Your task to perform on an android device: Go to Maps Image 0: 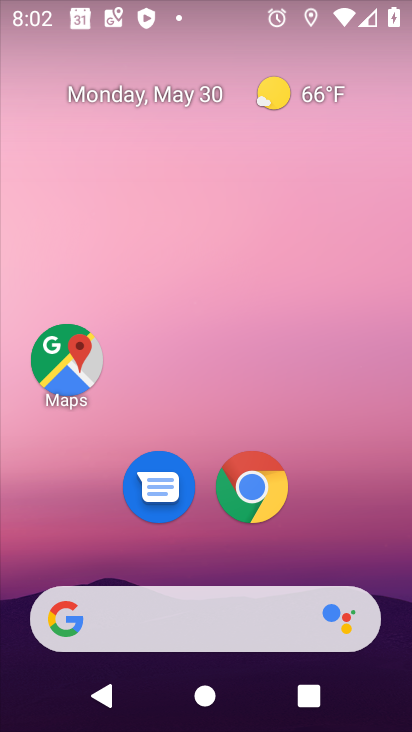
Step 0: press home button
Your task to perform on an android device: Go to Maps Image 1: 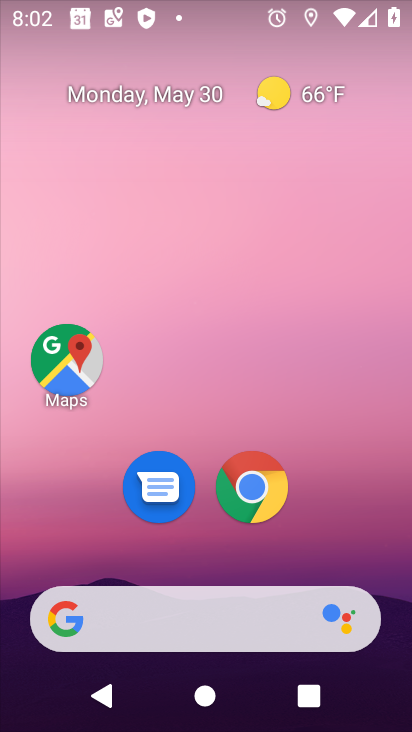
Step 1: click (72, 364)
Your task to perform on an android device: Go to Maps Image 2: 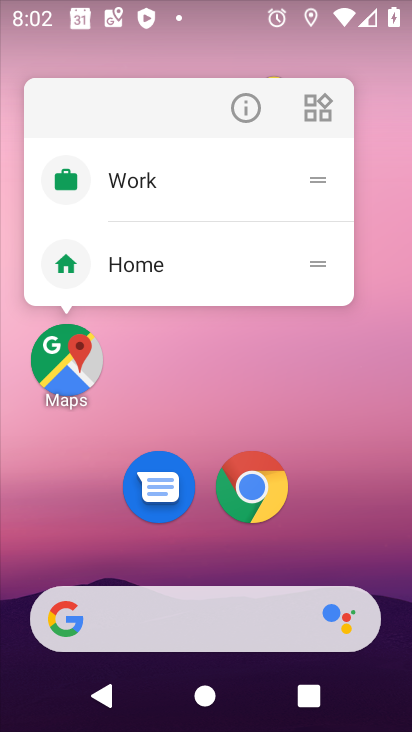
Step 2: click (73, 364)
Your task to perform on an android device: Go to Maps Image 3: 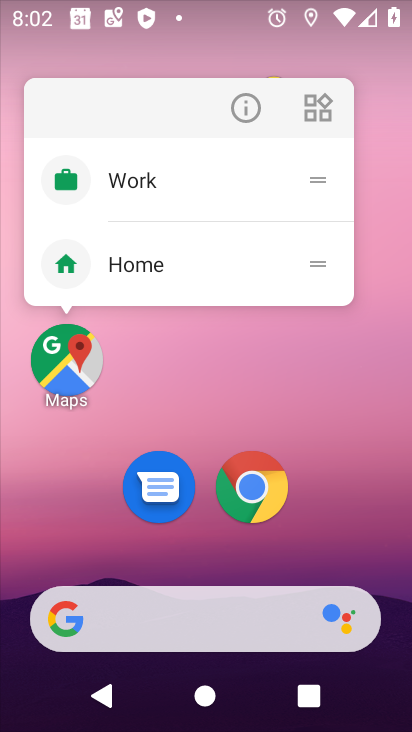
Step 3: click (353, 486)
Your task to perform on an android device: Go to Maps Image 4: 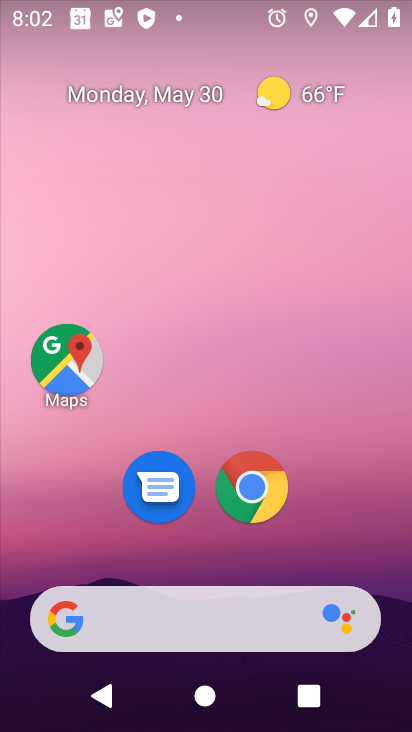
Step 4: drag from (280, 565) to (240, 23)
Your task to perform on an android device: Go to Maps Image 5: 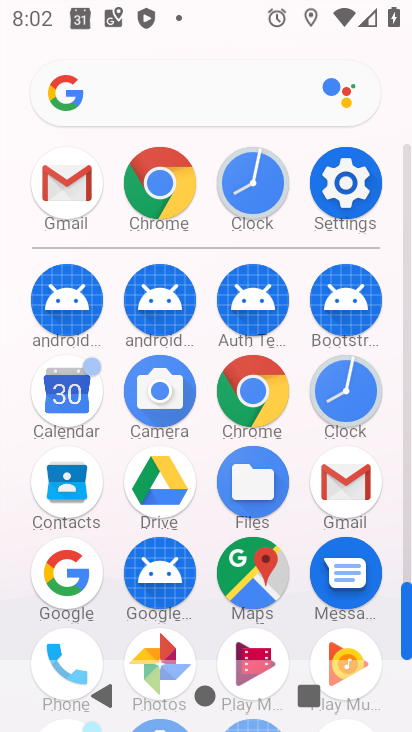
Step 5: click (260, 597)
Your task to perform on an android device: Go to Maps Image 6: 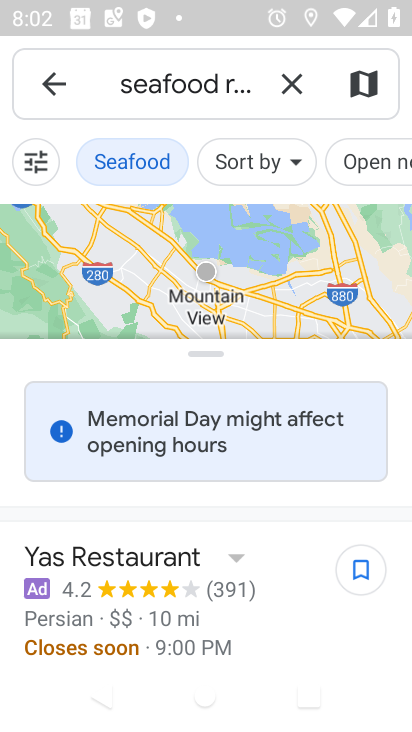
Step 6: click (293, 88)
Your task to perform on an android device: Go to Maps Image 7: 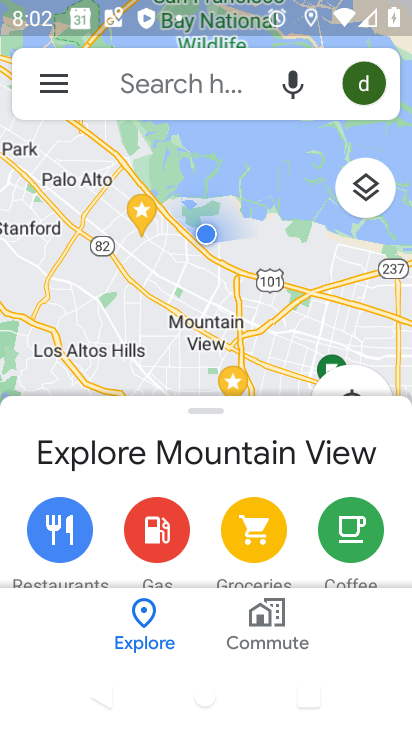
Step 7: task complete